Your task to perform on an android device: Go to Google Image 0: 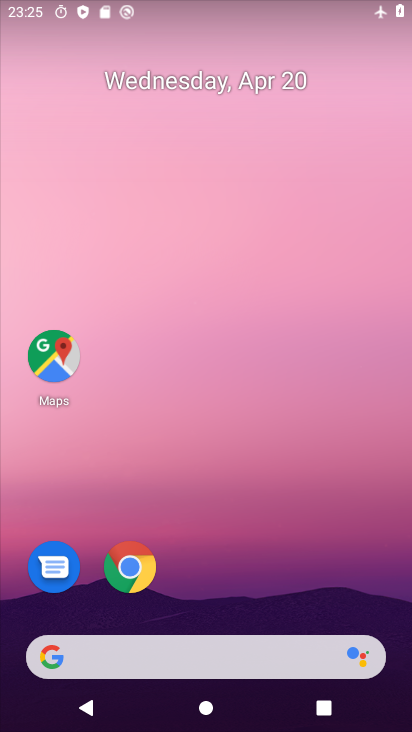
Step 0: click (256, 200)
Your task to perform on an android device: Go to Google Image 1: 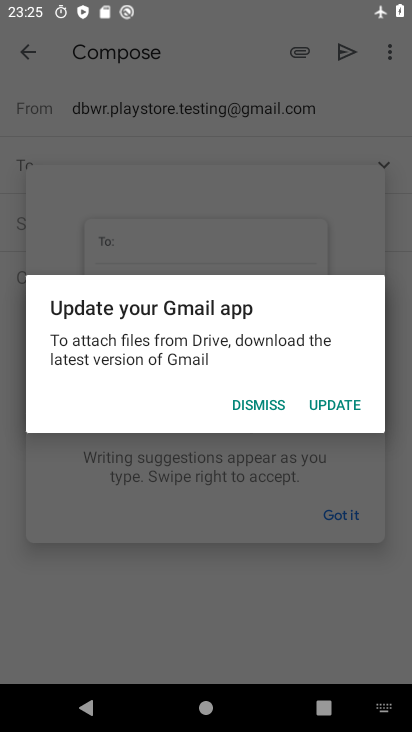
Step 1: press home button
Your task to perform on an android device: Go to Google Image 2: 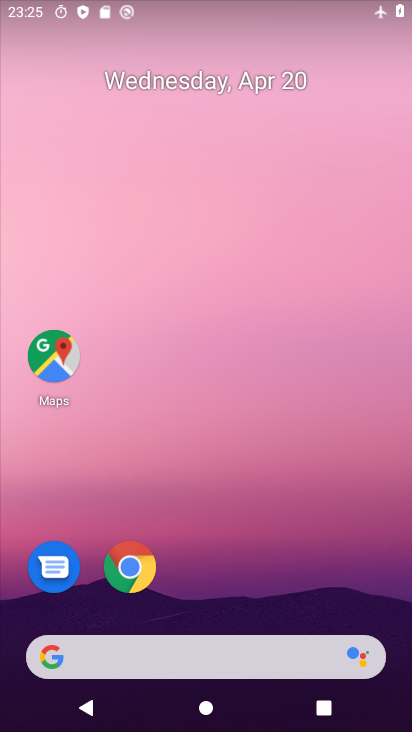
Step 2: drag from (170, 645) to (241, 236)
Your task to perform on an android device: Go to Google Image 3: 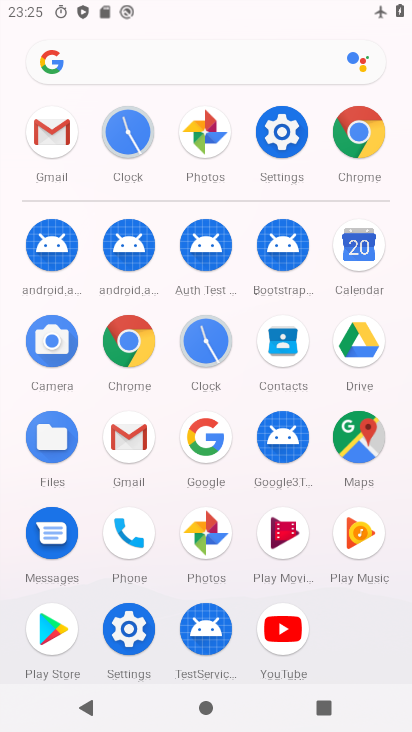
Step 3: click (194, 431)
Your task to perform on an android device: Go to Google Image 4: 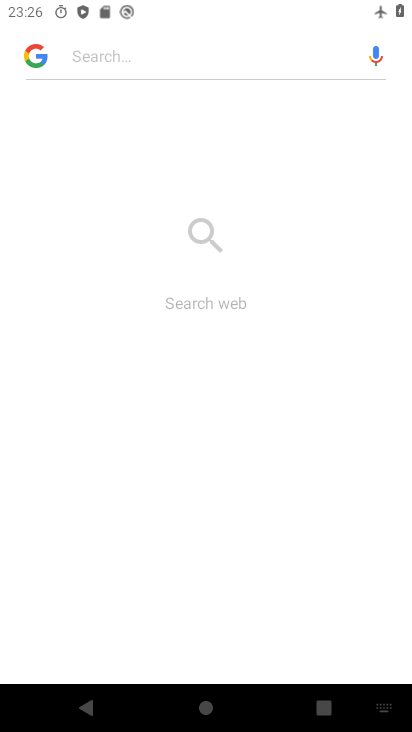
Step 4: task complete